Your task to perform on an android device: When is my next appointment? Image 0: 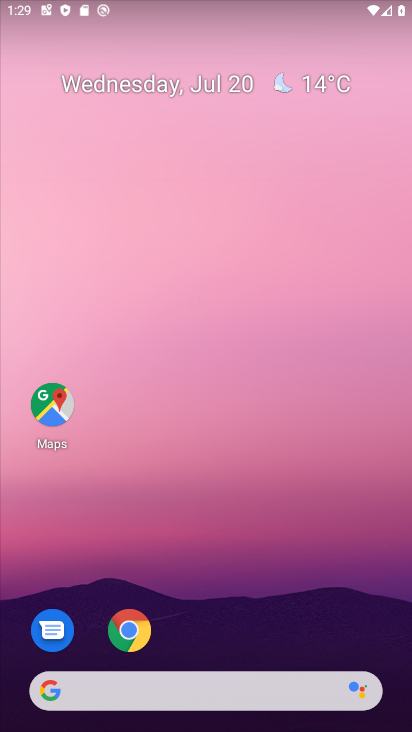
Step 0: drag from (224, 725) to (171, 191)
Your task to perform on an android device: When is my next appointment? Image 1: 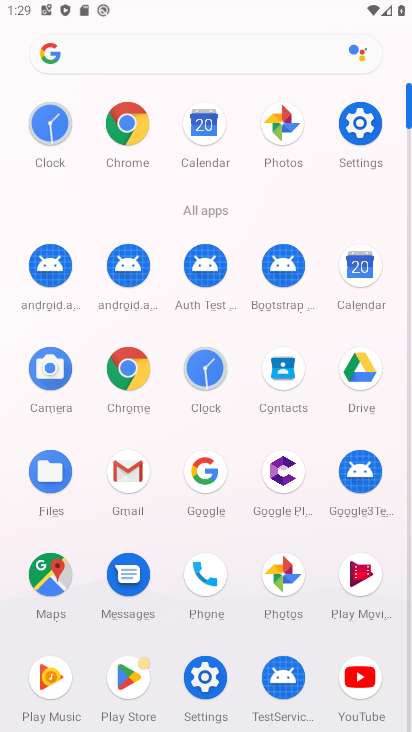
Step 1: click (355, 289)
Your task to perform on an android device: When is my next appointment? Image 2: 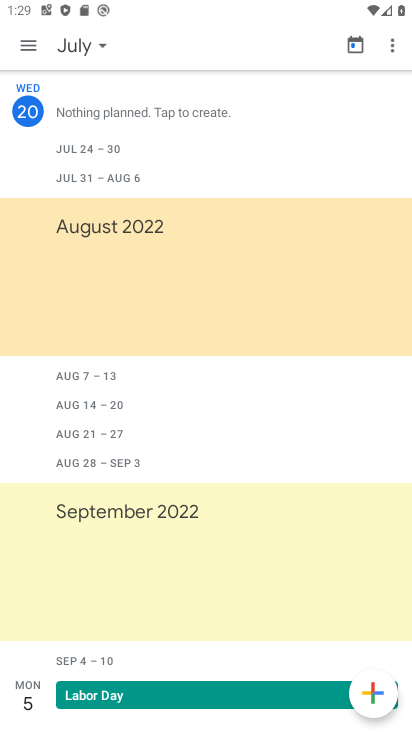
Step 2: click (28, 56)
Your task to perform on an android device: When is my next appointment? Image 3: 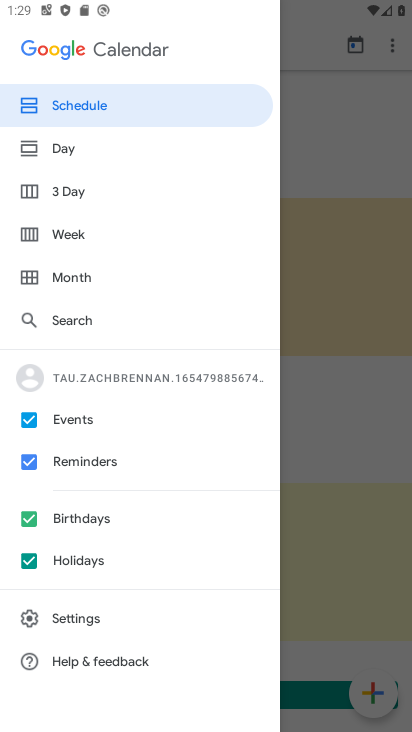
Step 3: click (68, 148)
Your task to perform on an android device: When is my next appointment? Image 4: 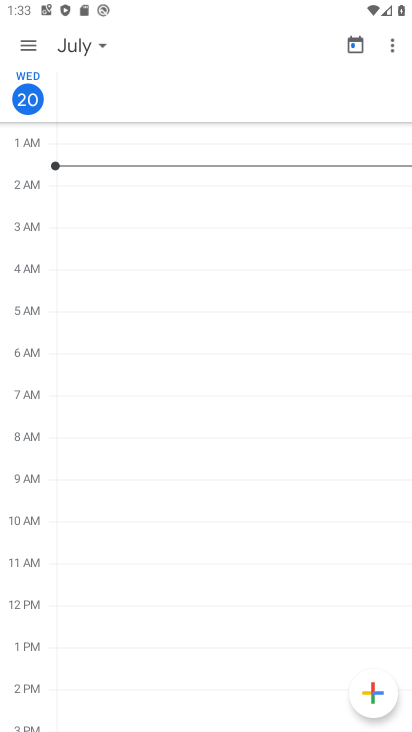
Step 4: task complete